Your task to perform on an android device: Open my contact list Image 0: 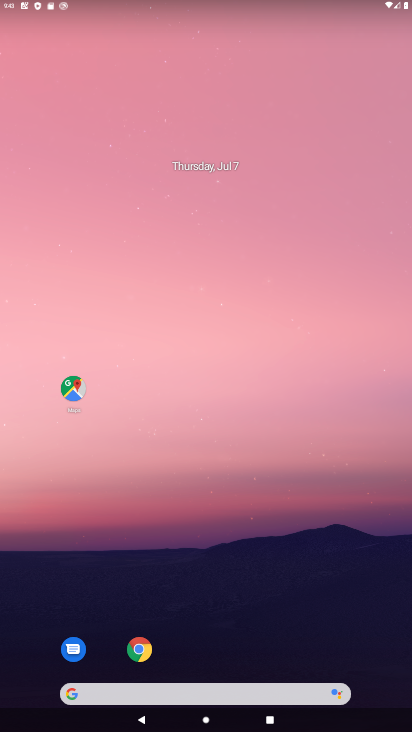
Step 0: drag from (289, 504) to (278, 259)
Your task to perform on an android device: Open my contact list Image 1: 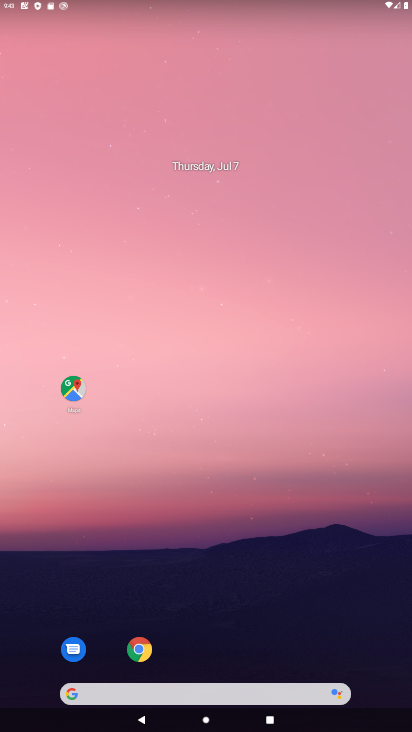
Step 1: drag from (236, 542) to (175, 196)
Your task to perform on an android device: Open my contact list Image 2: 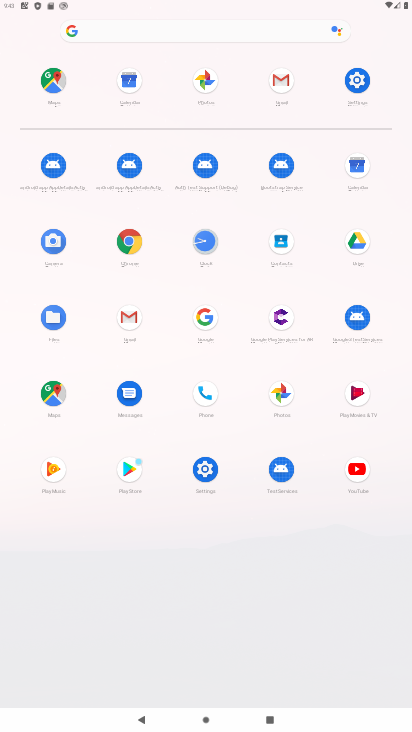
Step 2: click (130, 82)
Your task to perform on an android device: Open my contact list Image 3: 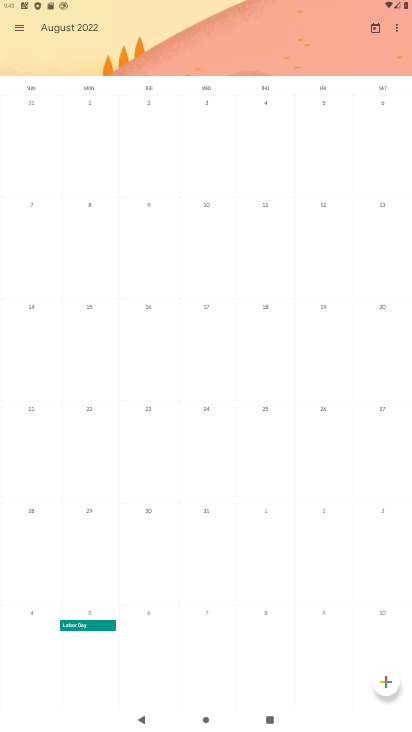
Step 3: press home button
Your task to perform on an android device: Open my contact list Image 4: 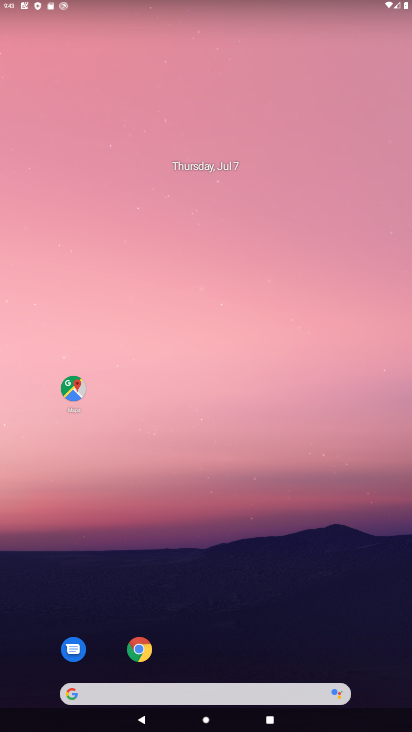
Step 4: drag from (258, 445) to (260, 240)
Your task to perform on an android device: Open my contact list Image 5: 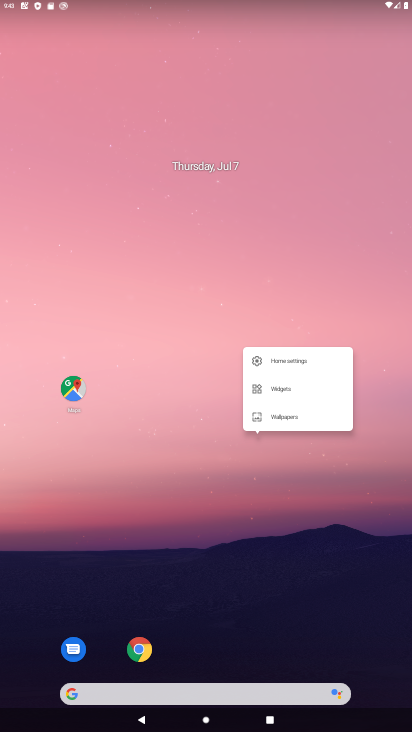
Step 5: click (140, 548)
Your task to perform on an android device: Open my contact list Image 6: 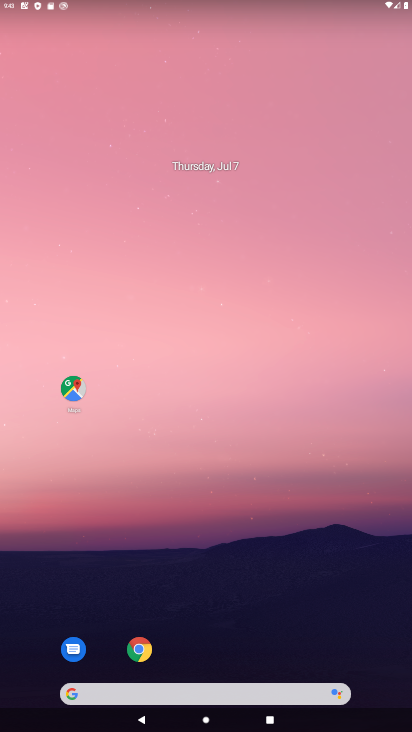
Step 6: drag from (140, 548) to (154, 205)
Your task to perform on an android device: Open my contact list Image 7: 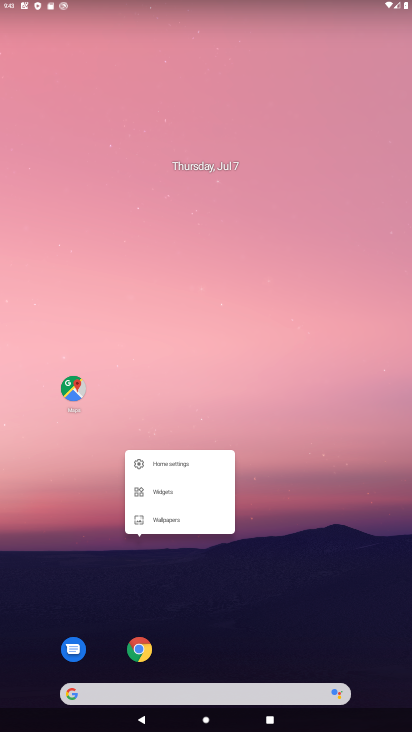
Step 7: click (298, 452)
Your task to perform on an android device: Open my contact list Image 8: 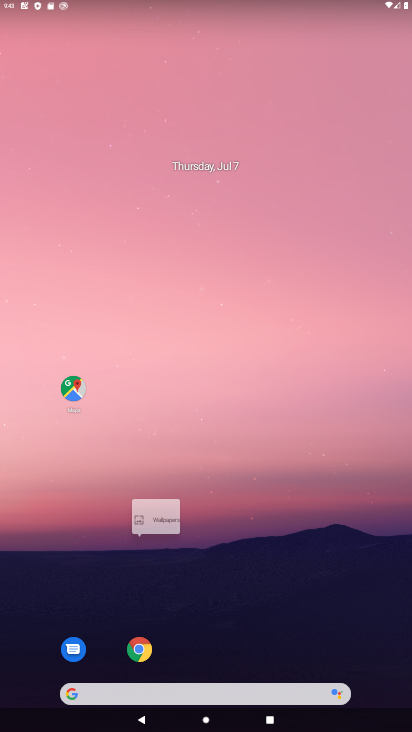
Step 8: drag from (298, 452) to (276, 40)
Your task to perform on an android device: Open my contact list Image 9: 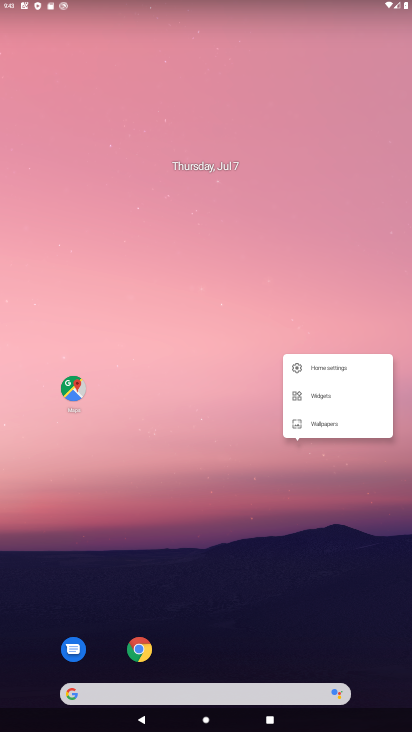
Step 9: drag from (203, 458) to (230, 180)
Your task to perform on an android device: Open my contact list Image 10: 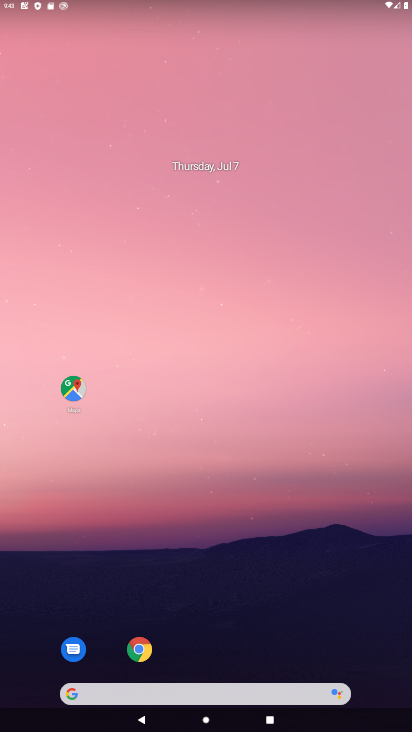
Step 10: drag from (212, 487) to (183, 5)
Your task to perform on an android device: Open my contact list Image 11: 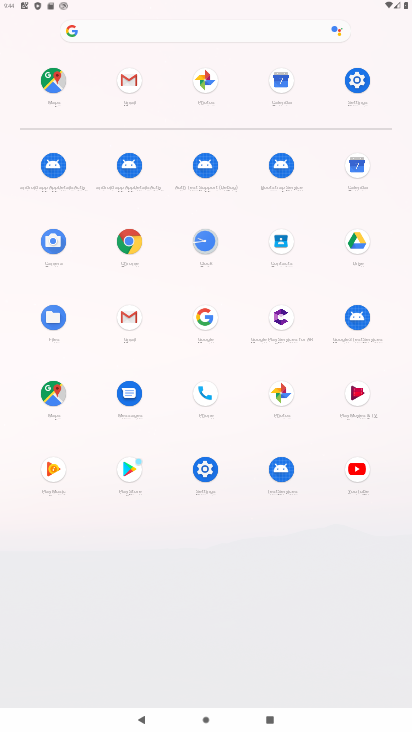
Step 11: click (279, 239)
Your task to perform on an android device: Open my contact list Image 12: 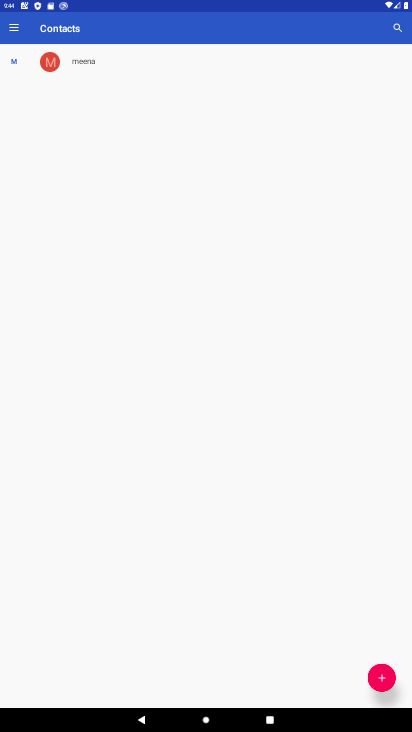
Step 12: task complete